Your task to perform on an android device: Show me the alarms in the clock app Image 0: 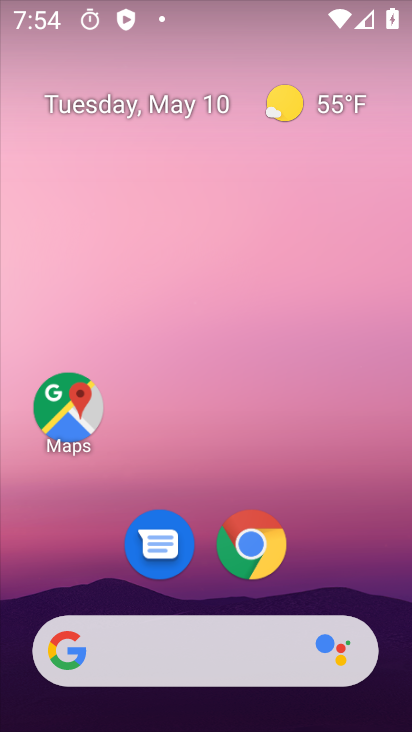
Step 0: drag from (242, 600) to (191, 202)
Your task to perform on an android device: Show me the alarms in the clock app Image 1: 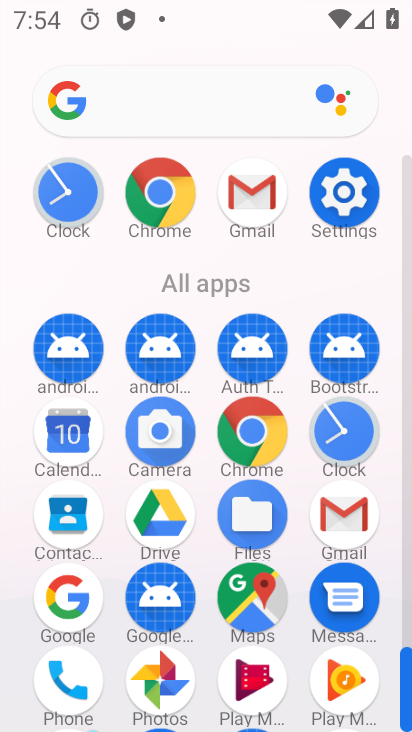
Step 1: click (60, 210)
Your task to perform on an android device: Show me the alarms in the clock app Image 2: 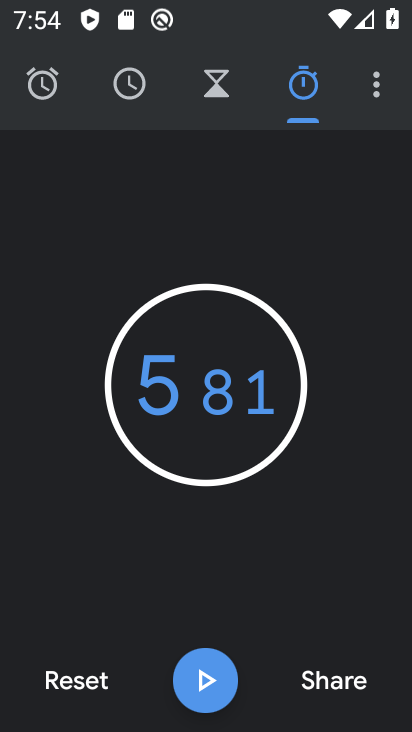
Step 2: click (35, 83)
Your task to perform on an android device: Show me the alarms in the clock app Image 3: 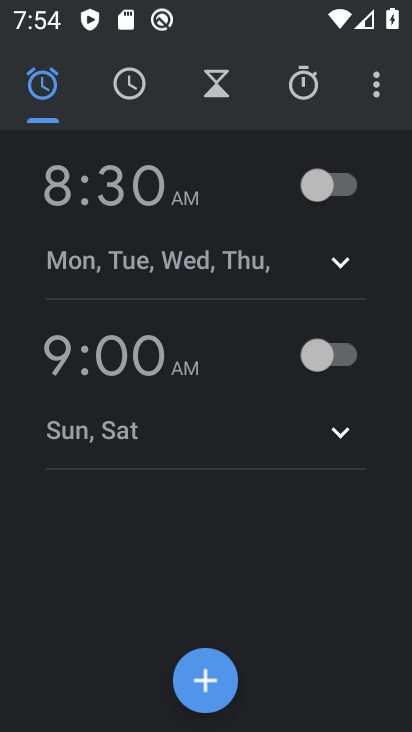
Step 3: task complete